Your task to perform on an android device: turn on sleep mode Image 0: 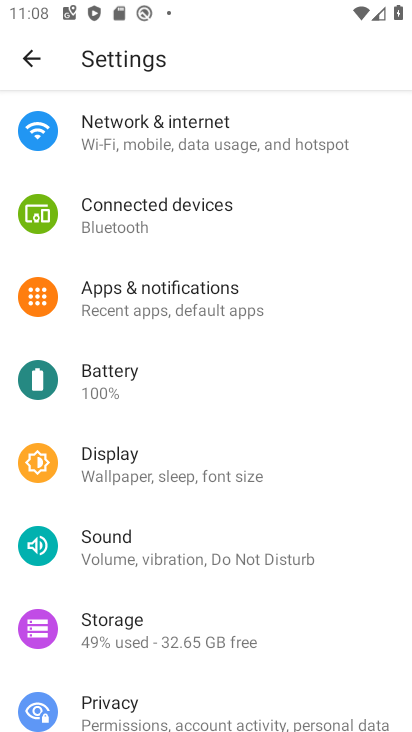
Step 0: drag from (176, 700) to (176, 213)
Your task to perform on an android device: turn on sleep mode Image 1: 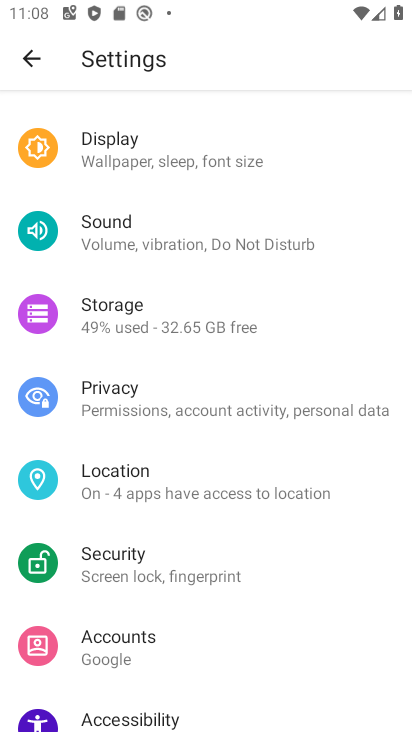
Step 1: click (205, 156)
Your task to perform on an android device: turn on sleep mode Image 2: 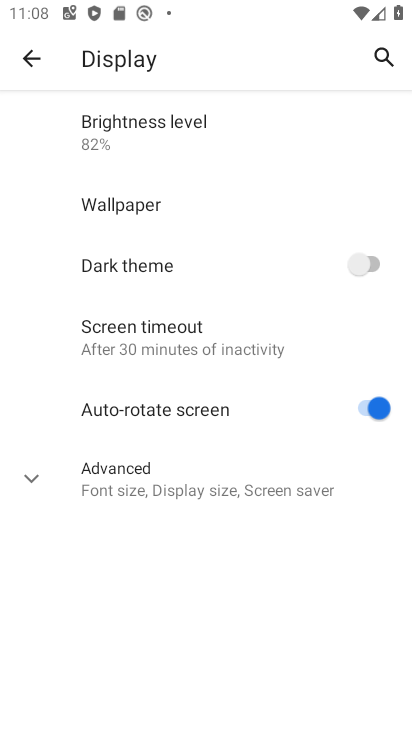
Step 2: click (30, 55)
Your task to perform on an android device: turn on sleep mode Image 3: 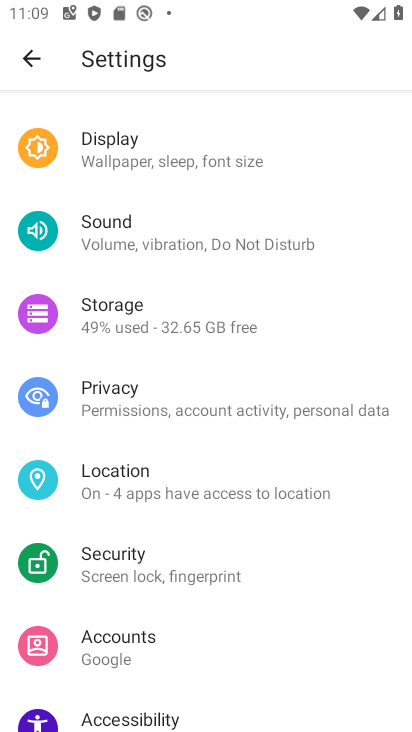
Step 3: task complete